Your task to perform on an android device: change text size in settings app Image 0: 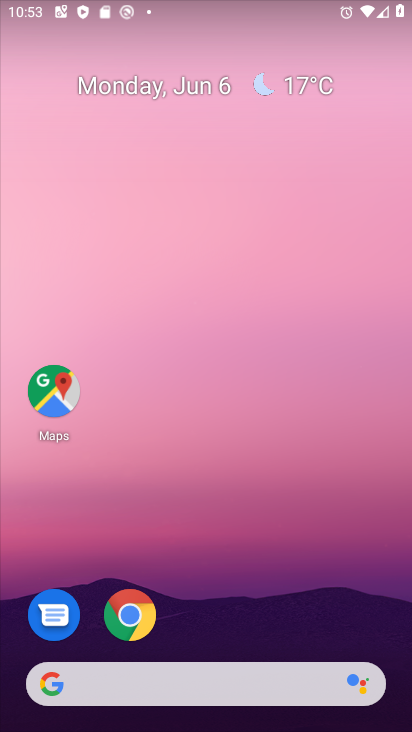
Step 0: drag from (219, 639) to (223, 75)
Your task to perform on an android device: change text size in settings app Image 1: 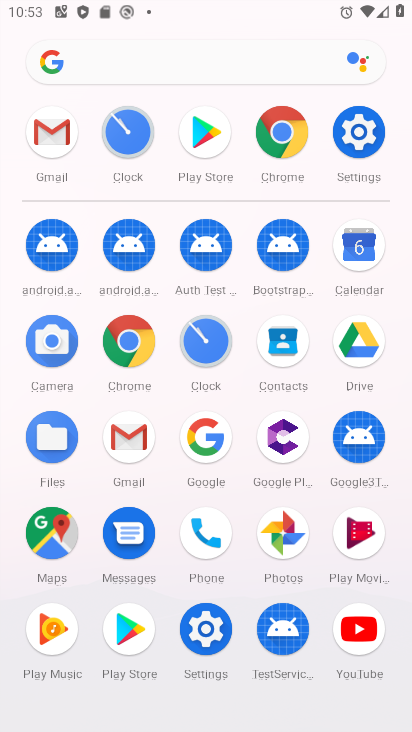
Step 1: click (355, 125)
Your task to perform on an android device: change text size in settings app Image 2: 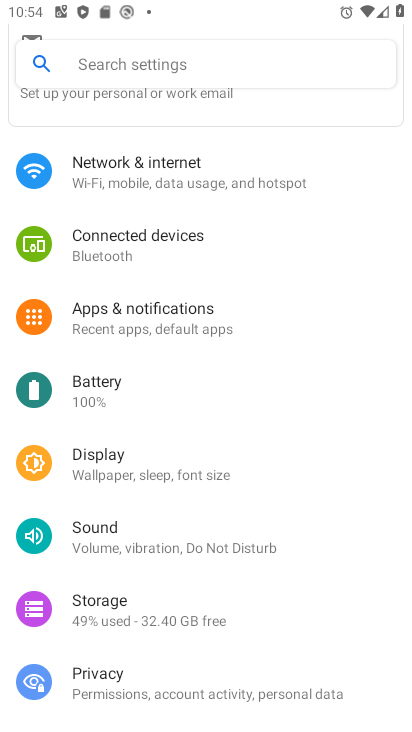
Step 2: click (120, 455)
Your task to perform on an android device: change text size in settings app Image 3: 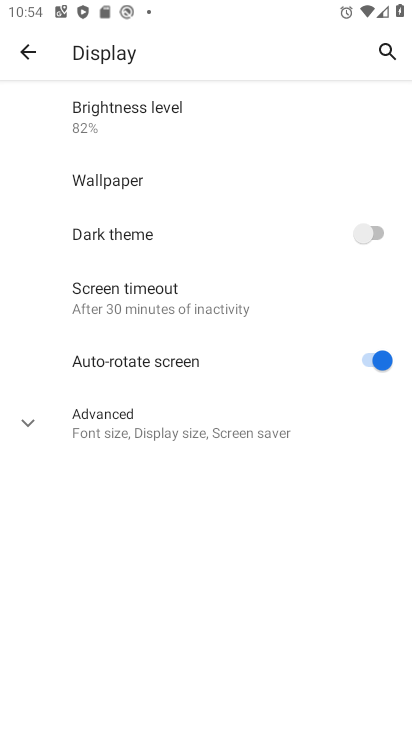
Step 3: click (31, 414)
Your task to perform on an android device: change text size in settings app Image 4: 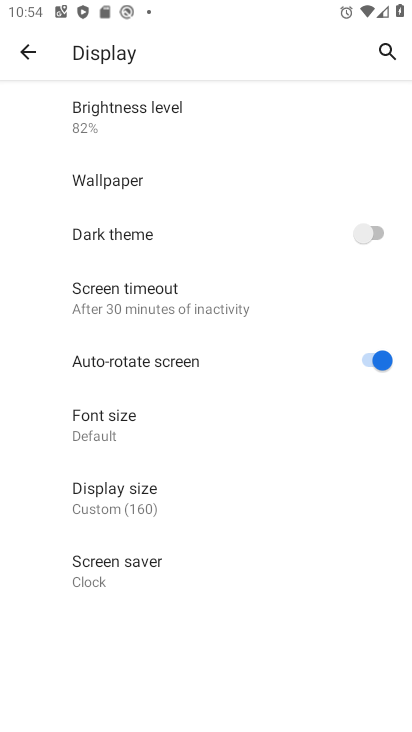
Step 4: click (153, 424)
Your task to perform on an android device: change text size in settings app Image 5: 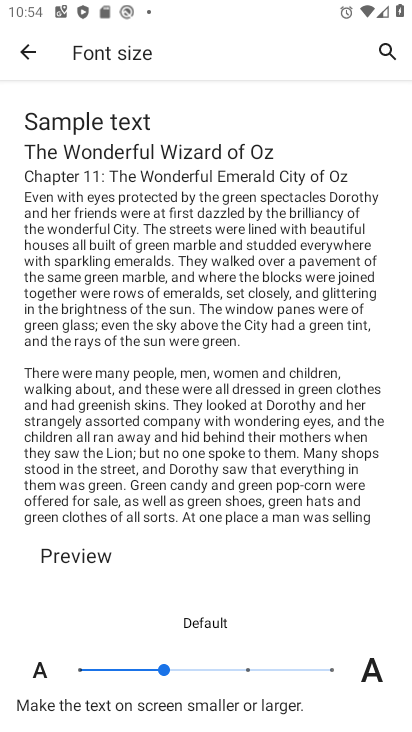
Step 5: click (85, 669)
Your task to perform on an android device: change text size in settings app Image 6: 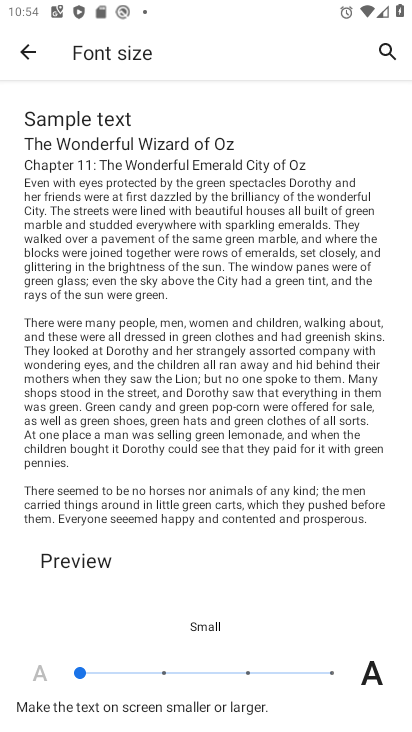
Step 6: task complete